Your task to perform on an android device: Show me recent news Image 0: 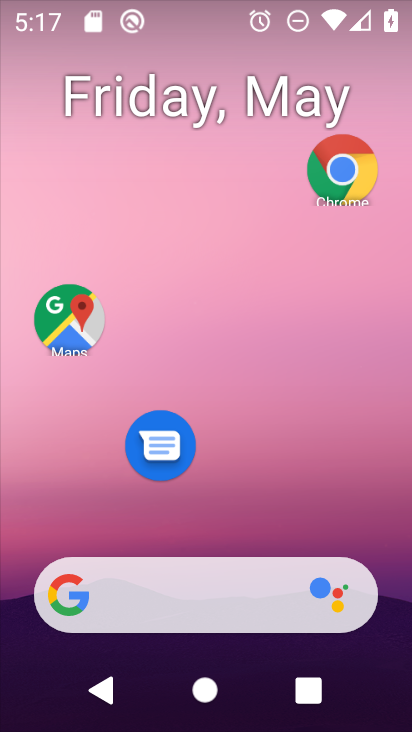
Step 0: drag from (221, 513) to (218, 2)
Your task to perform on an android device: Show me recent news Image 1: 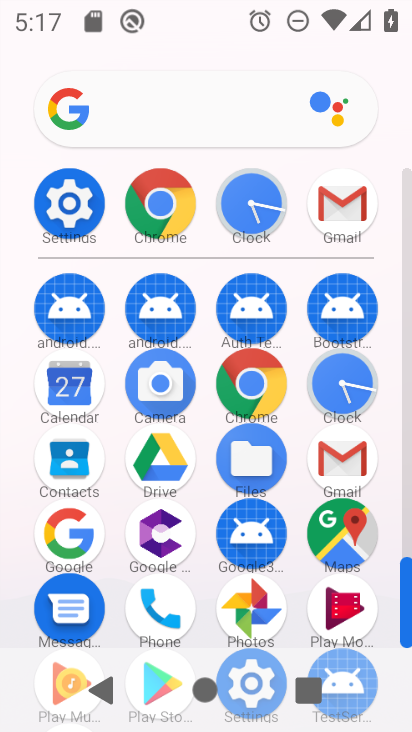
Step 1: click (84, 537)
Your task to perform on an android device: Show me recent news Image 2: 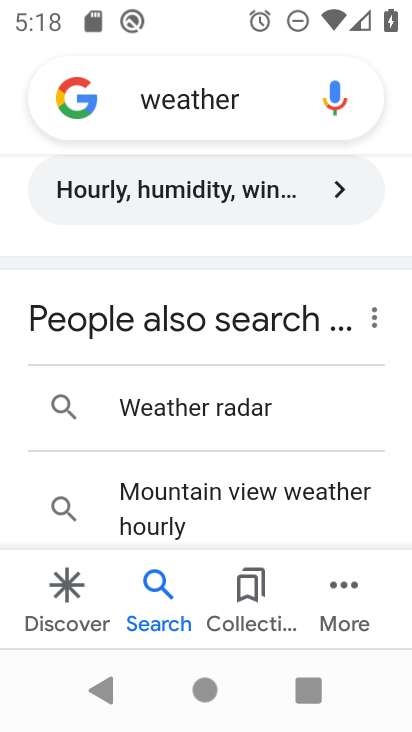
Step 2: drag from (255, 262) to (296, 547)
Your task to perform on an android device: Show me recent news Image 3: 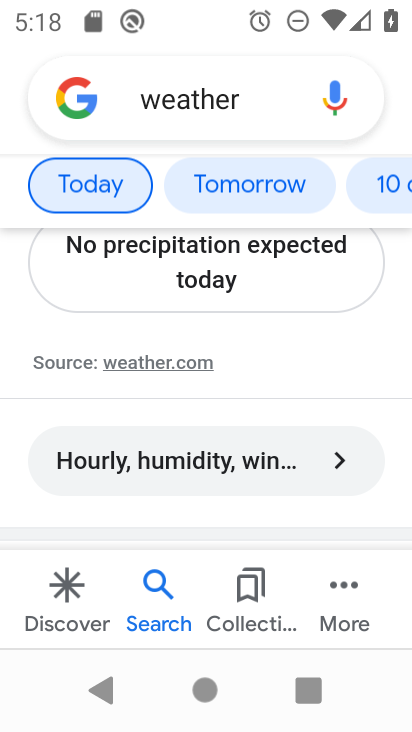
Step 3: drag from (238, 351) to (223, 602)
Your task to perform on an android device: Show me recent news Image 4: 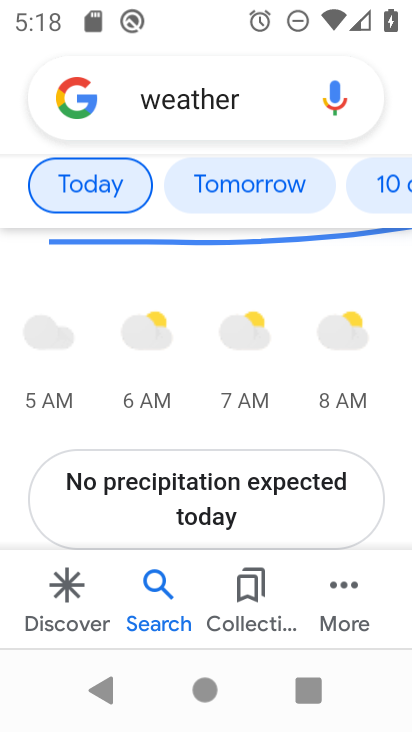
Step 4: drag from (157, 326) to (149, 653)
Your task to perform on an android device: Show me recent news Image 5: 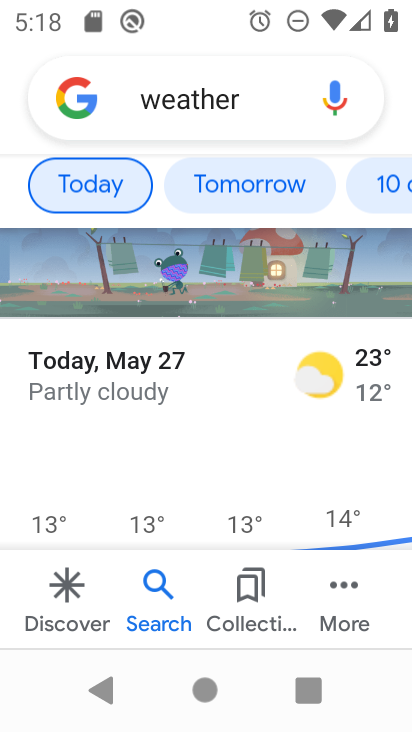
Step 5: click (235, 97)
Your task to perform on an android device: Show me recent news Image 6: 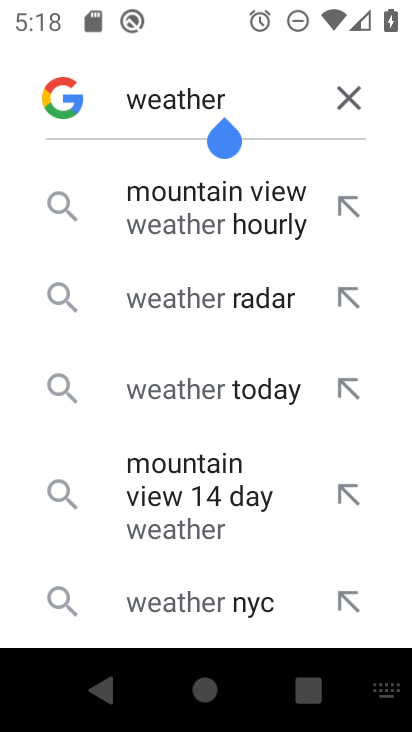
Step 6: click (356, 106)
Your task to perform on an android device: Show me recent news Image 7: 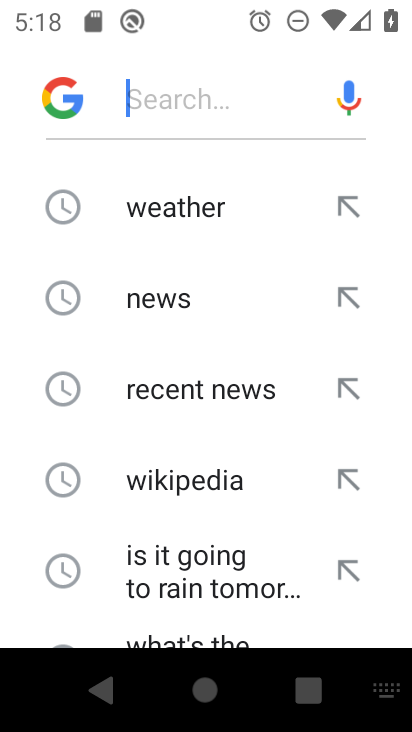
Step 7: click (159, 385)
Your task to perform on an android device: Show me recent news Image 8: 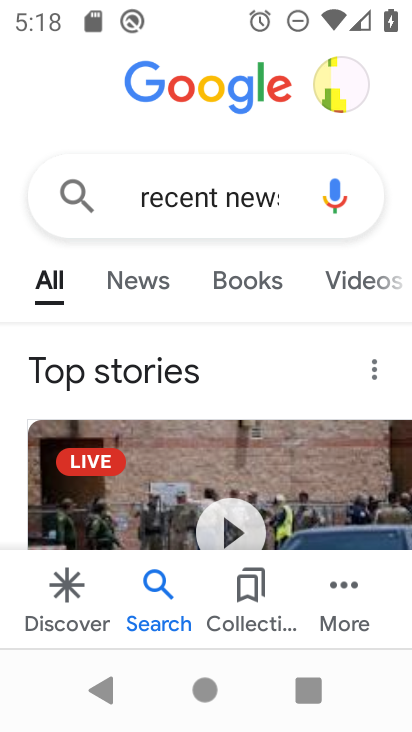
Step 8: drag from (251, 466) to (283, 124)
Your task to perform on an android device: Show me recent news Image 9: 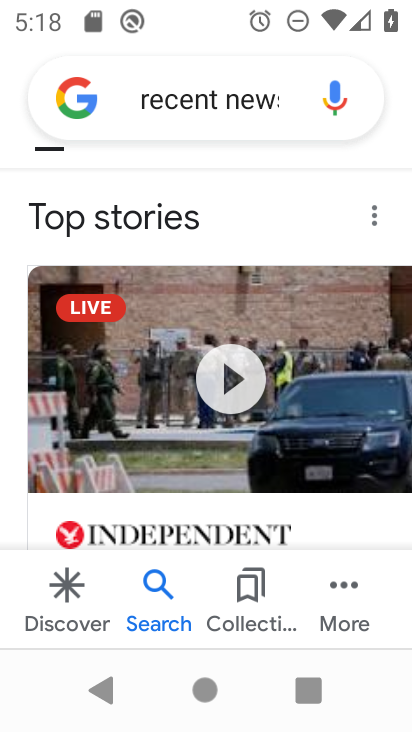
Step 9: click (262, 277)
Your task to perform on an android device: Show me recent news Image 10: 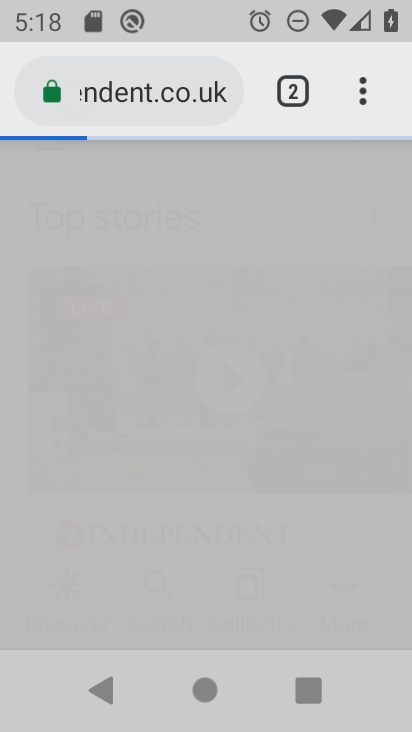
Step 10: task complete